Your task to perform on an android device: Open privacy settings Image 0: 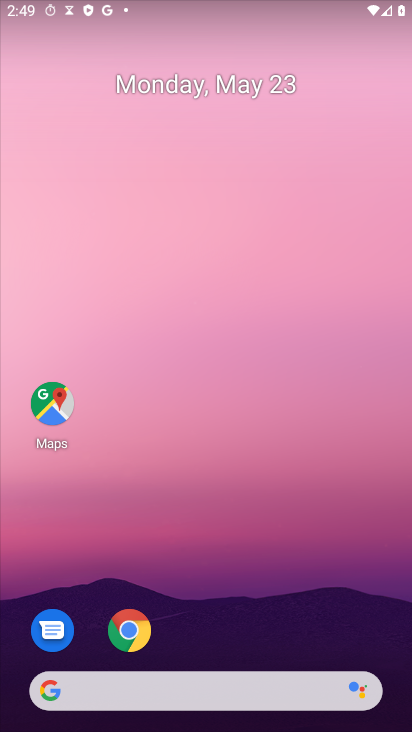
Step 0: drag from (313, 589) to (342, 102)
Your task to perform on an android device: Open privacy settings Image 1: 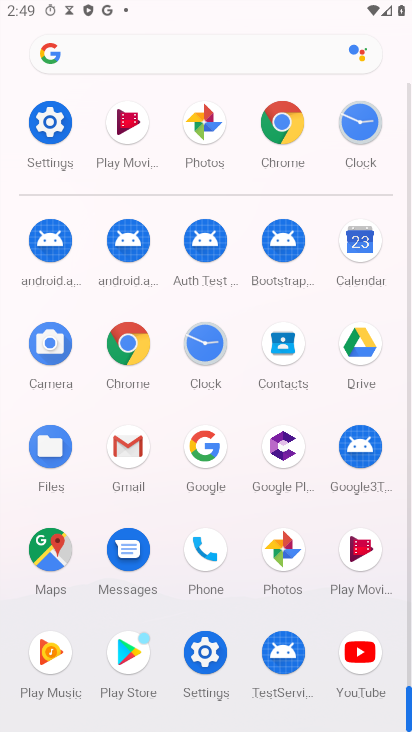
Step 1: click (49, 119)
Your task to perform on an android device: Open privacy settings Image 2: 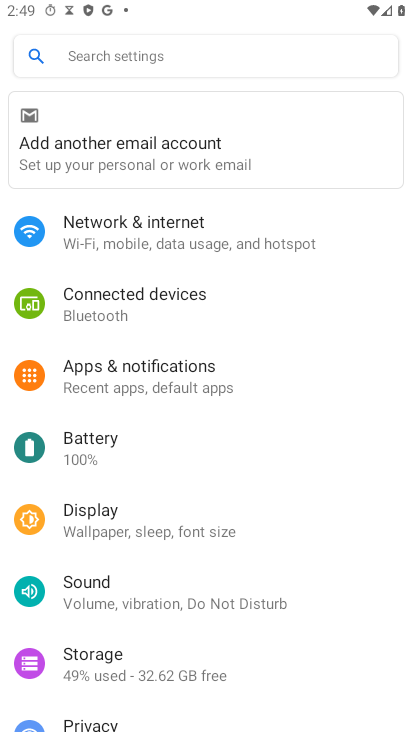
Step 2: drag from (217, 412) to (210, 612)
Your task to perform on an android device: Open privacy settings Image 3: 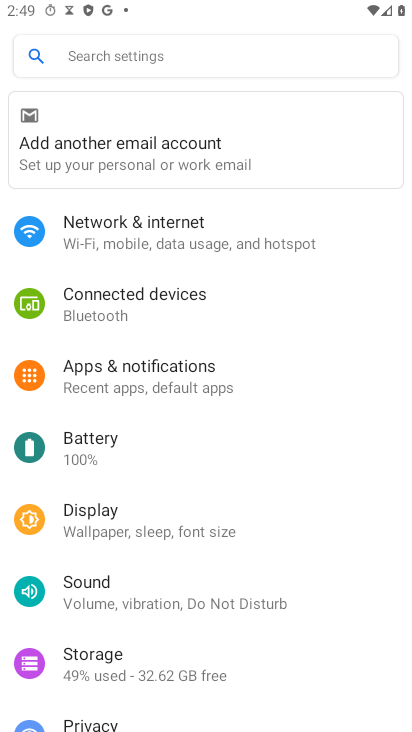
Step 3: drag from (271, 551) to (250, 128)
Your task to perform on an android device: Open privacy settings Image 4: 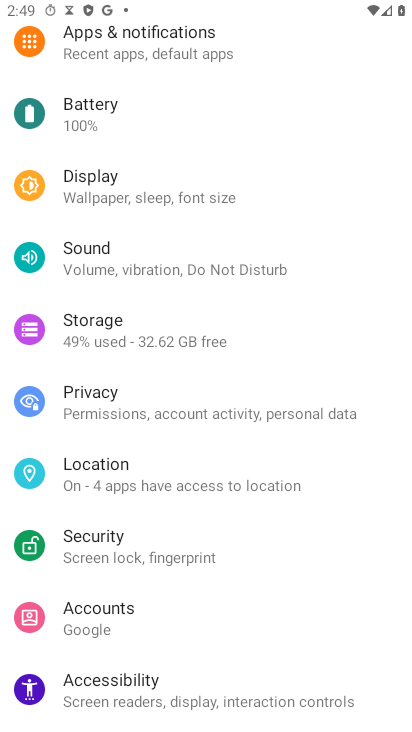
Step 4: click (106, 396)
Your task to perform on an android device: Open privacy settings Image 5: 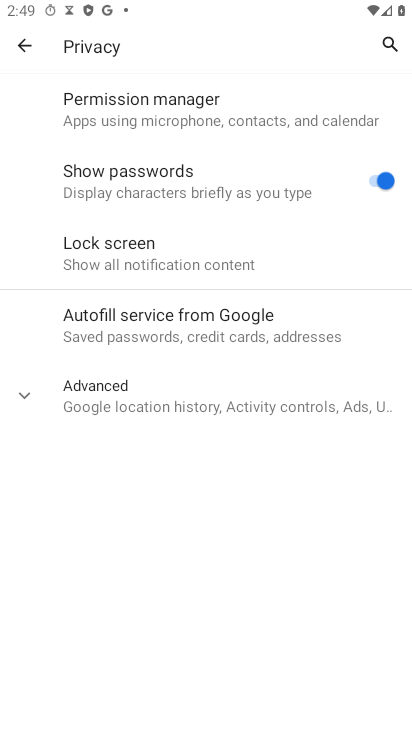
Step 5: task complete